Your task to perform on an android device: Open Chrome and go to settings Image 0: 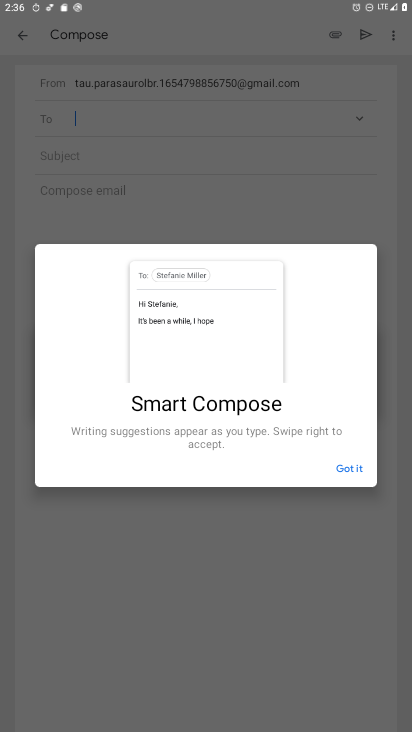
Step 0: press home button
Your task to perform on an android device: Open Chrome and go to settings Image 1: 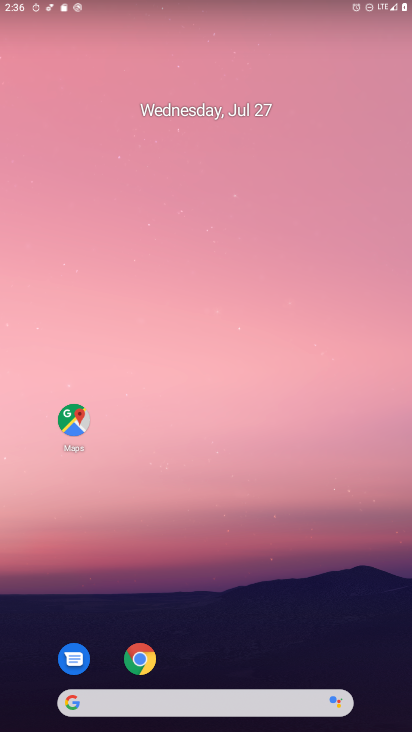
Step 1: drag from (309, 561) to (379, 68)
Your task to perform on an android device: Open Chrome and go to settings Image 2: 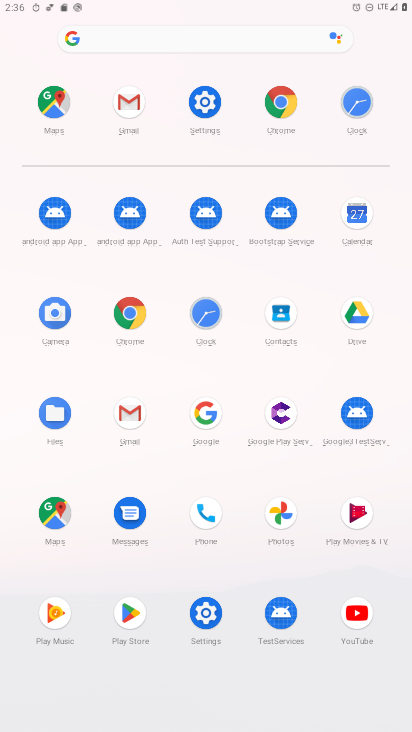
Step 2: click (133, 311)
Your task to perform on an android device: Open Chrome and go to settings Image 3: 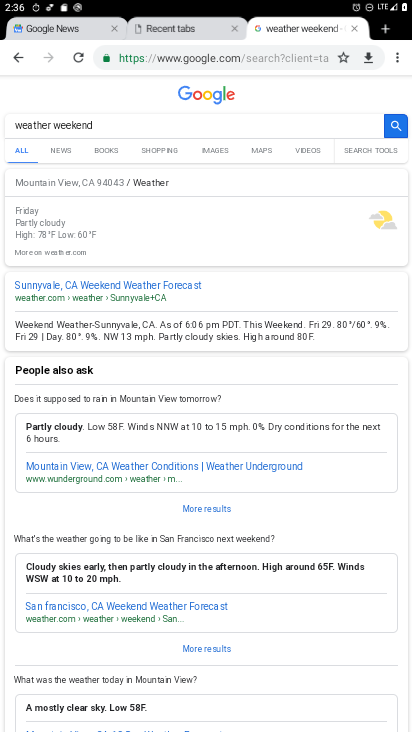
Step 3: task complete